Your task to perform on an android device: What's on my calendar today? Image 0: 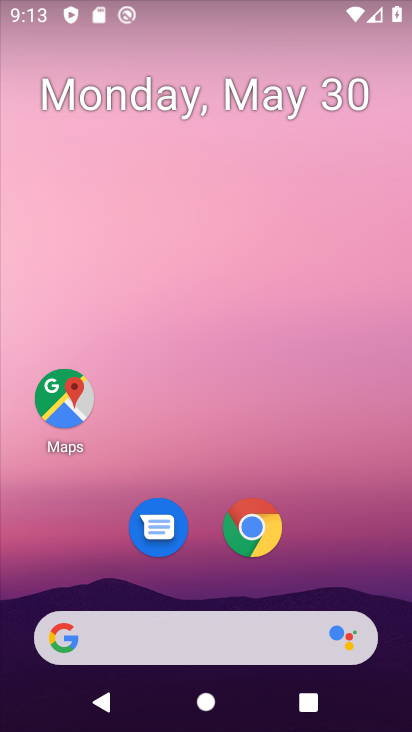
Step 0: drag from (99, 587) to (275, 7)
Your task to perform on an android device: What's on my calendar today? Image 1: 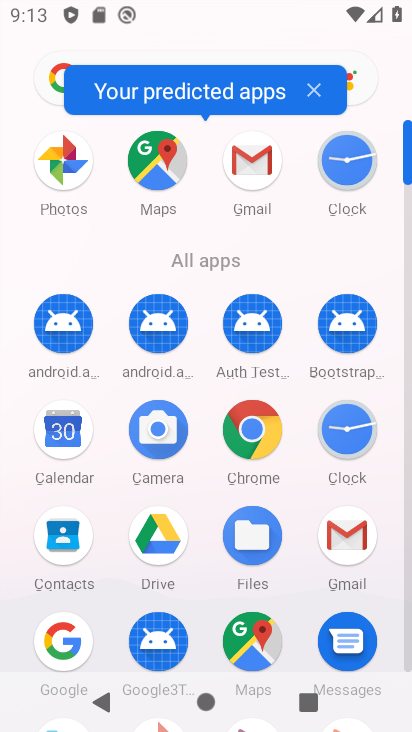
Step 1: click (69, 436)
Your task to perform on an android device: What's on my calendar today? Image 2: 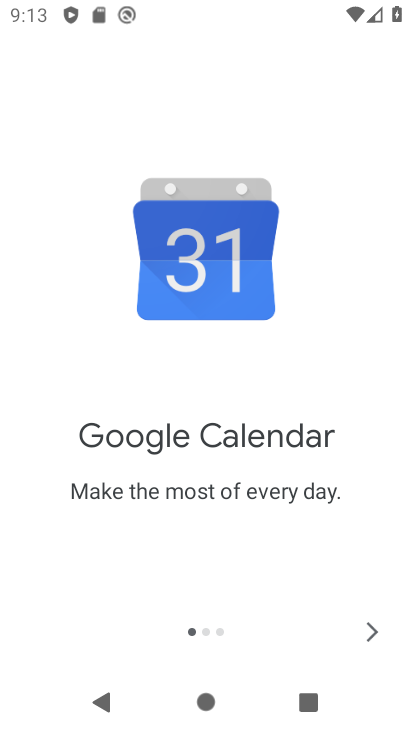
Step 2: click (387, 641)
Your task to perform on an android device: What's on my calendar today? Image 3: 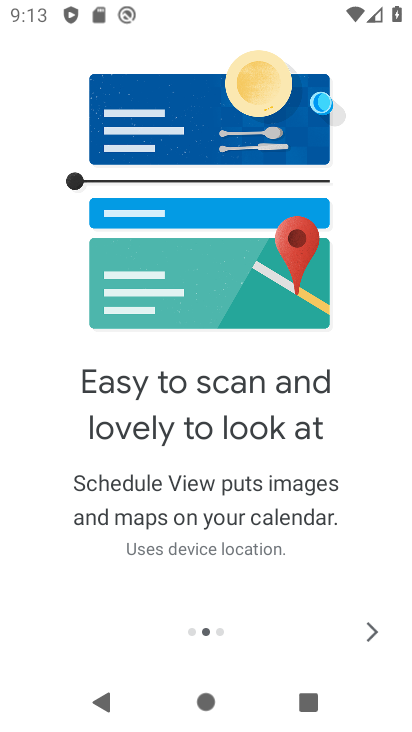
Step 3: click (382, 638)
Your task to perform on an android device: What's on my calendar today? Image 4: 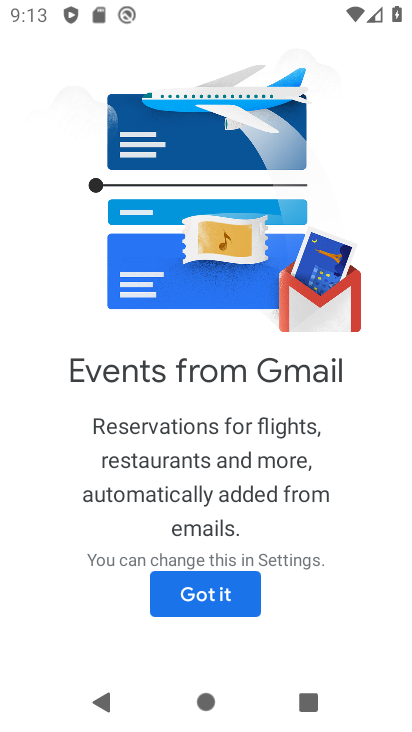
Step 4: click (185, 605)
Your task to perform on an android device: What's on my calendar today? Image 5: 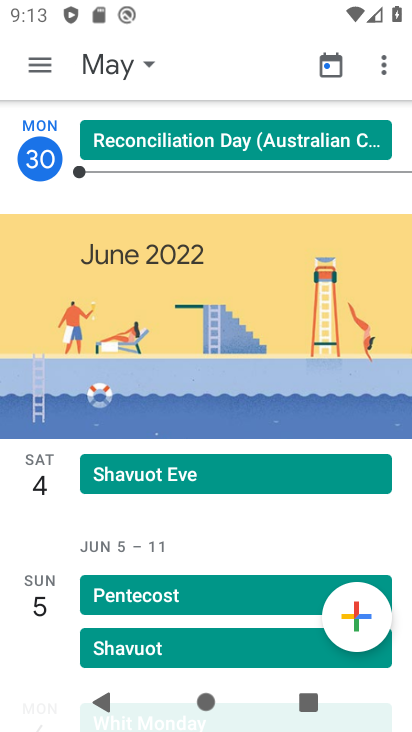
Step 5: click (40, 154)
Your task to perform on an android device: What's on my calendar today? Image 6: 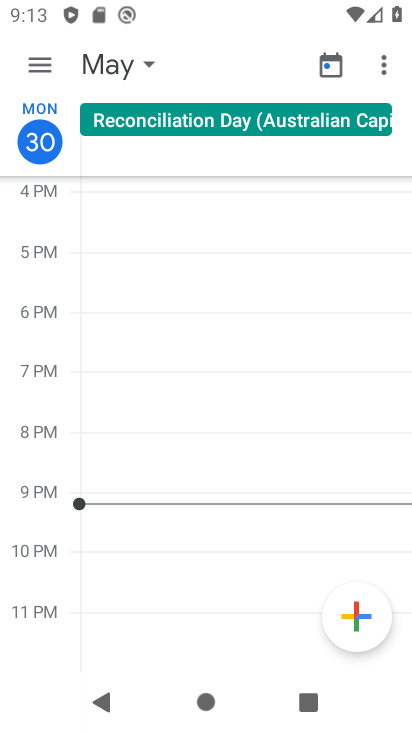
Step 6: task complete